Your task to perform on an android device: toggle notifications settings in the gmail app Image 0: 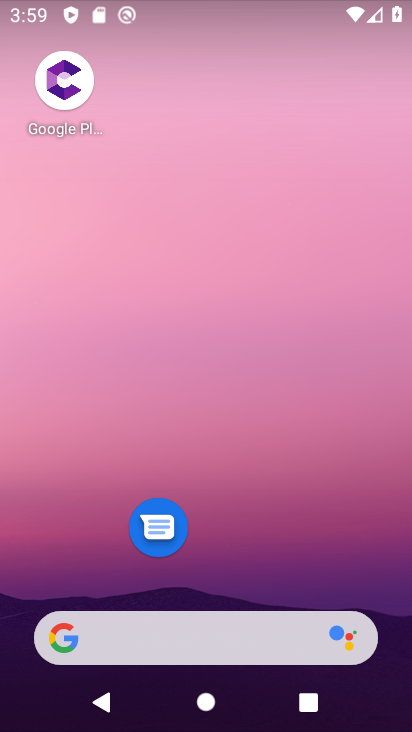
Step 0: drag from (224, 595) to (245, 7)
Your task to perform on an android device: toggle notifications settings in the gmail app Image 1: 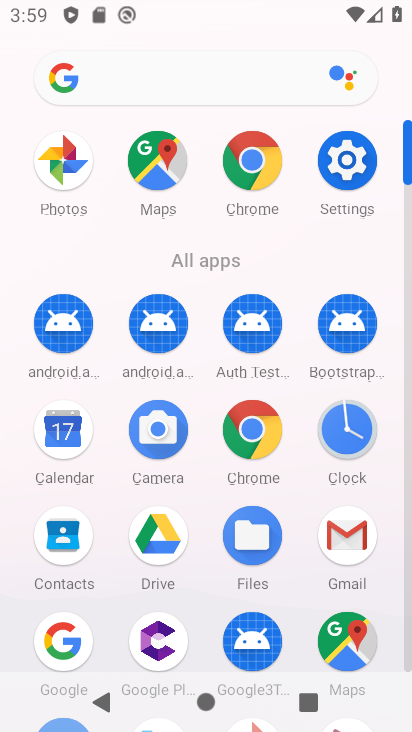
Step 1: click (337, 163)
Your task to perform on an android device: toggle notifications settings in the gmail app Image 2: 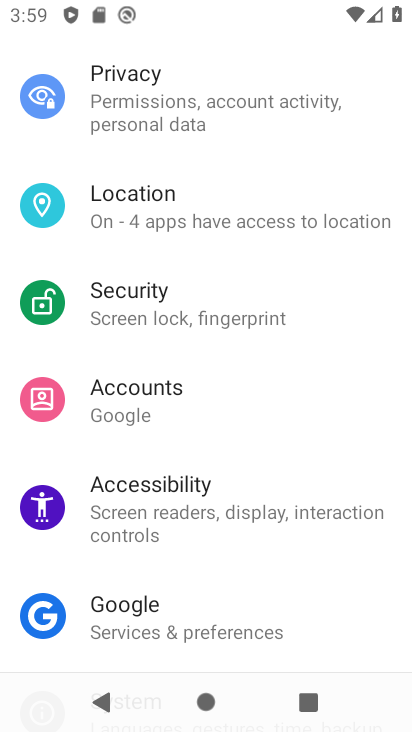
Step 2: drag from (337, 163) to (346, 557)
Your task to perform on an android device: toggle notifications settings in the gmail app Image 3: 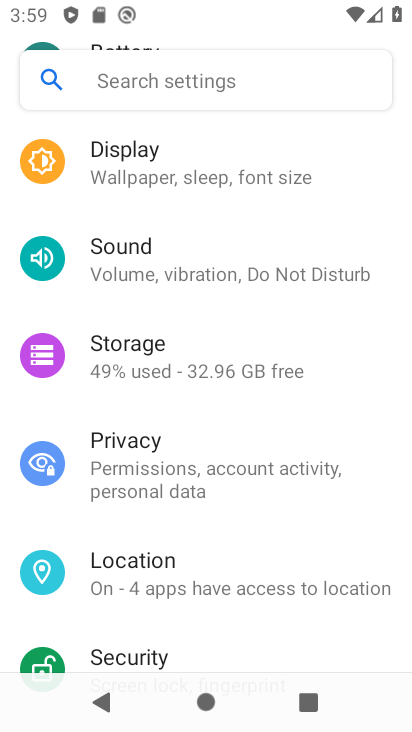
Step 3: drag from (313, 136) to (138, 693)
Your task to perform on an android device: toggle notifications settings in the gmail app Image 4: 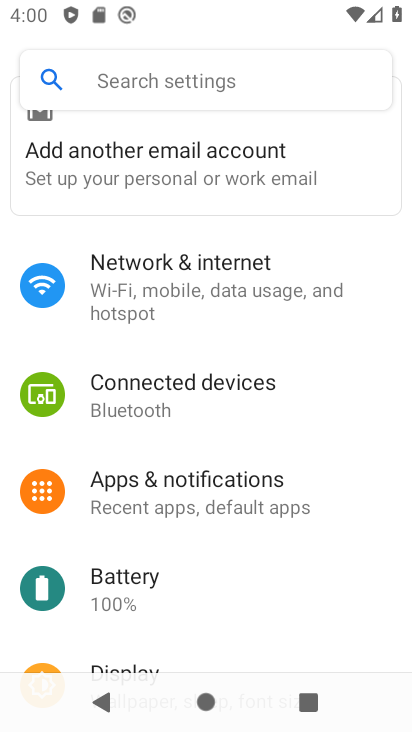
Step 4: click (205, 500)
Your task to perform on an android device: toggle notifications settings in the gmail app Image 5: 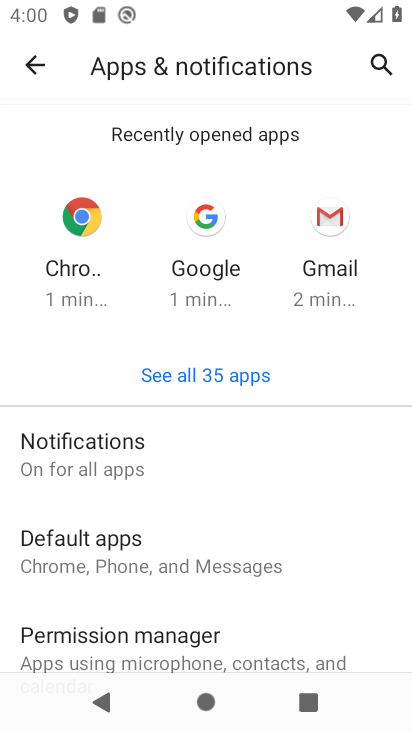
Step 5: click (331, 235)
Your task to perform on an android device: toggle notifications settings in the gmail app Image 6: 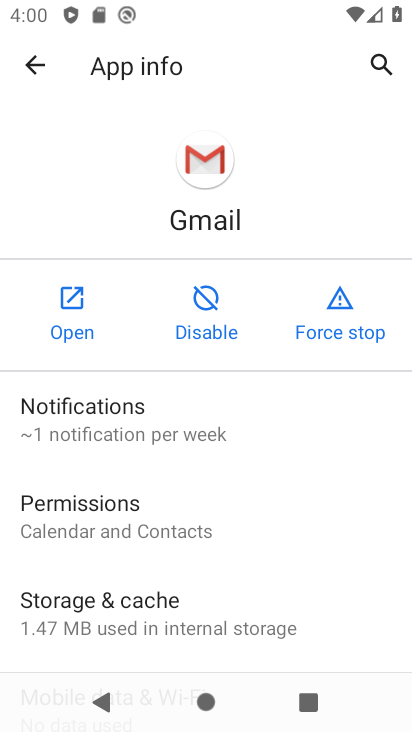
Step 6: click (104, 407)
Your task to perform on an android device: toggle notifications settings in the gmail app Image 7: 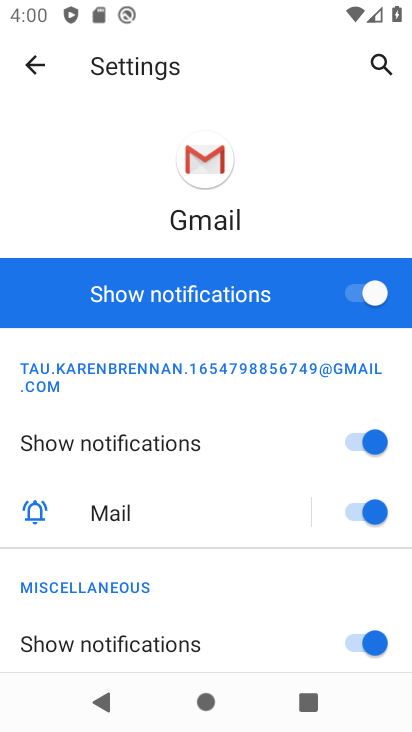
Step 7: click (361, 297)
Your task to perform on an android device: toggle notifications settings in the gmail app Image 8: 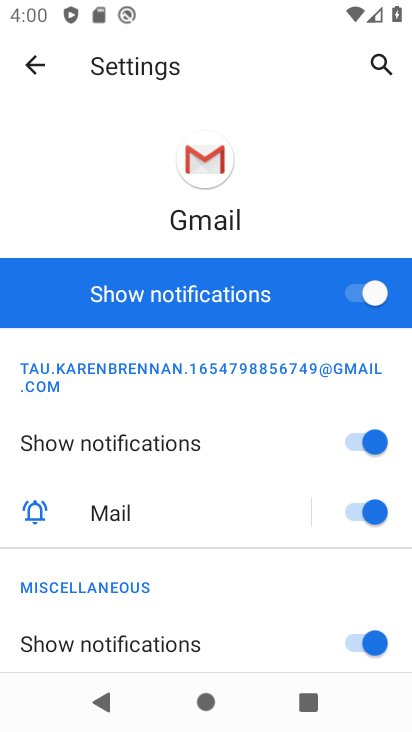
Step 8: click (361, 297)
Your task to perform on an android device: toggle notifications settings in the gmail app Image 9: 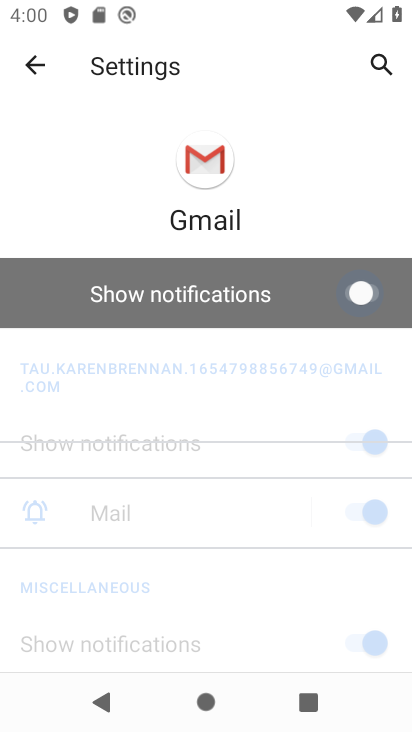
Step 9: click (361, 297)
Your task to perform on an android device: toggle notifications settings in the gmail app Image 10: 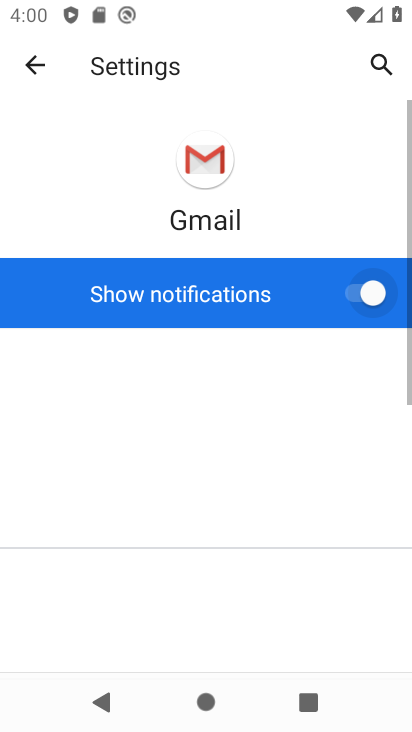
Step 10: click (361, 297)
Your task to perform on an android device: toggle notifications settings in the gmail app Image 11: 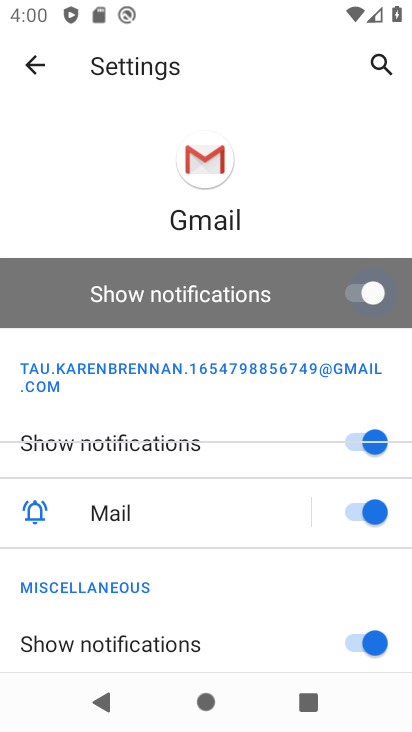
Step 11: click (361, 297)
Your task to perform on an android device: toggle notifications settings in the gmail app Image 12: 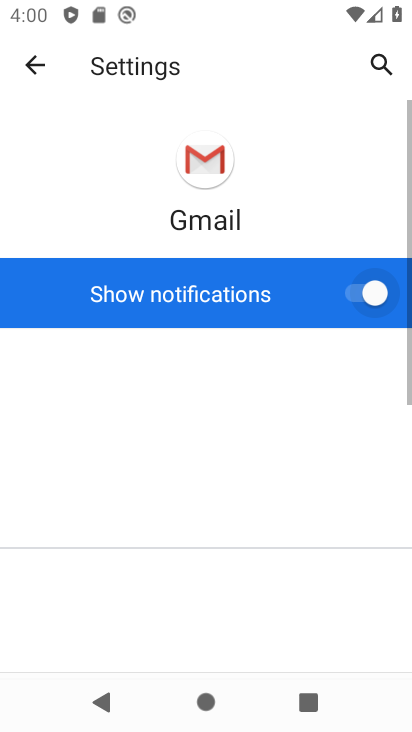
Step 12: click (361, 297)
Your task to perform on an android device: toggle notifications settings in the gmail app Image 13: 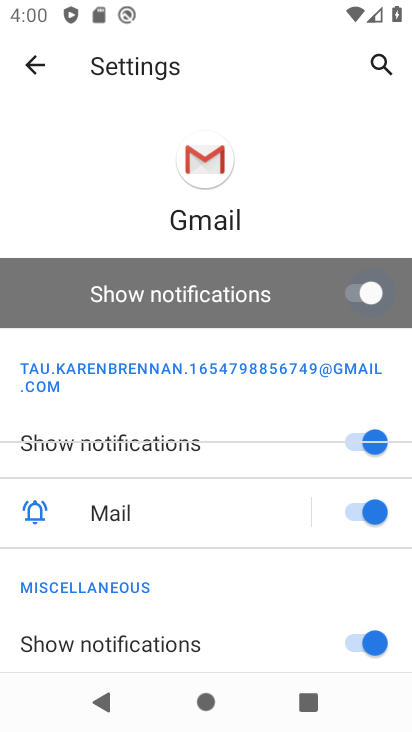
Step 13: click (361, 297)
Your task to perform on an android device: toggle notifications settings in the gmail app Image 14: 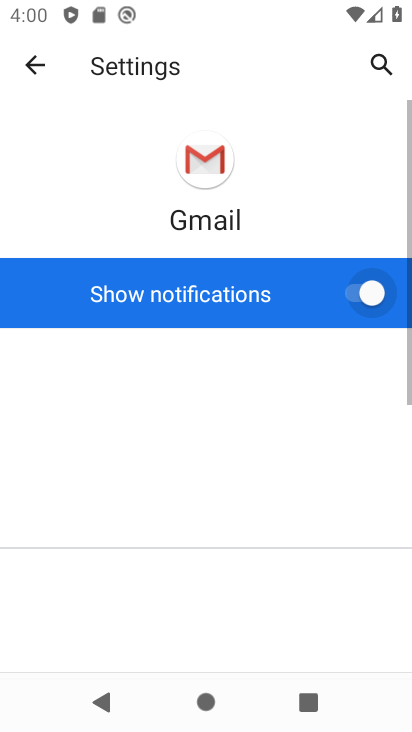
Step 14: click (361, 297)
Your task to perform on an android device: toggle notifications settings in the gmail app Image 15: 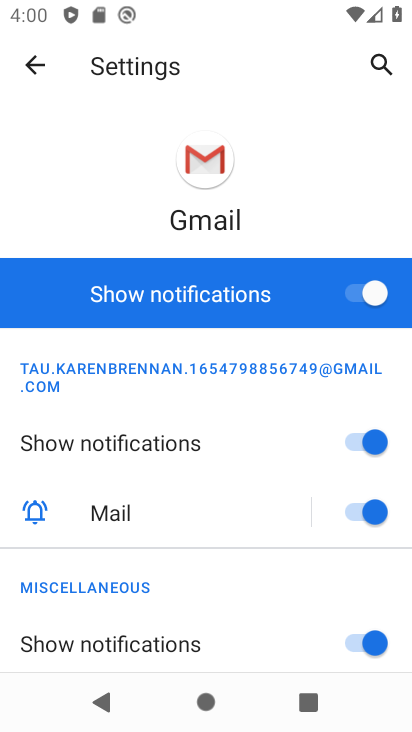
Step 15: task complete